Your task to perform on an android device: change the clock style Image 0: 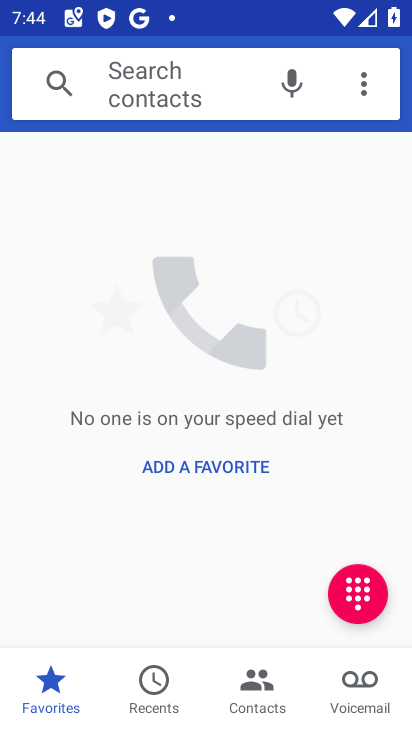
Step 0: press home button
Your task to perform on an android device: change the clock style Image 1: 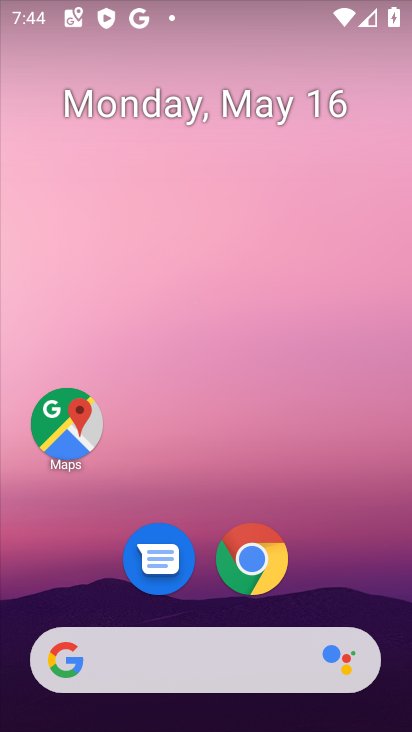
Step 1: drag from (316, 593) to (360, 108)
Your task to perform on an android device: change the clock style Image 2: 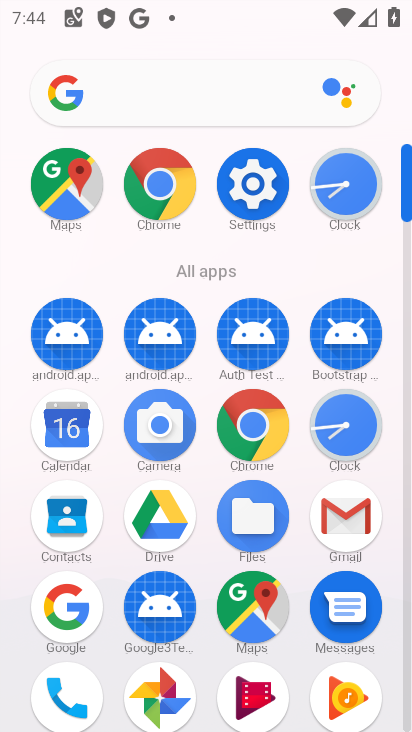
Step 2: click (350, 178)
Your task to perform on an android device: change the clock style Image 3: 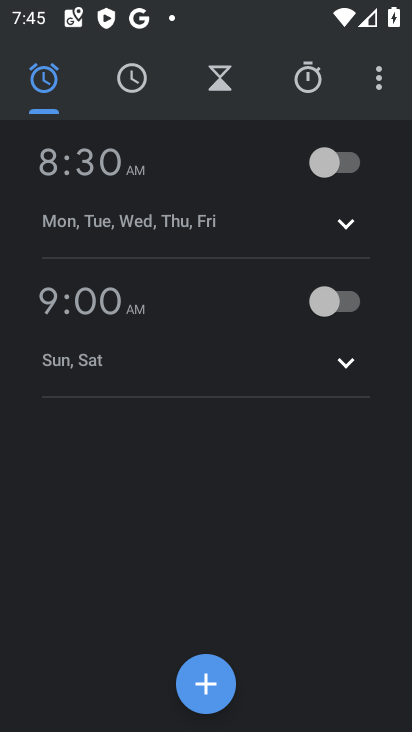
Step 3: click (389, 85)
Your task to perform on an android device: change the clock style Image 4: 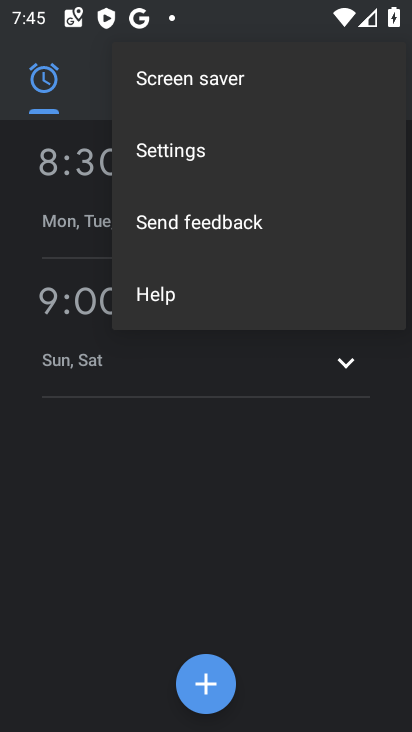
Step 4: click (150, 157)
Your task to perform on an android device: change the clock style Image 5: 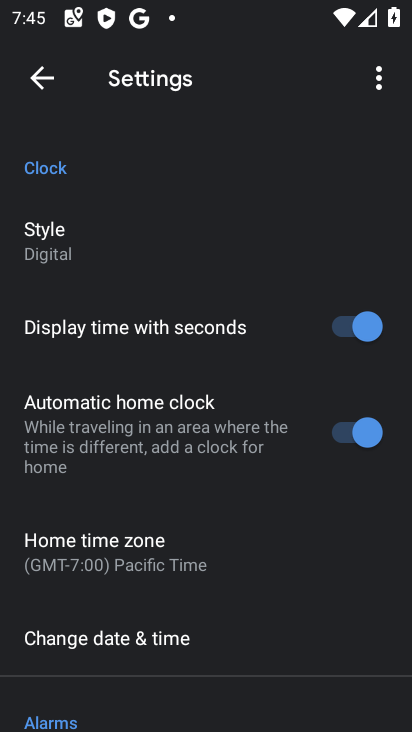
Step 5: click (130, 231)
Your task to perform on an android device: change the clock style Image 6: 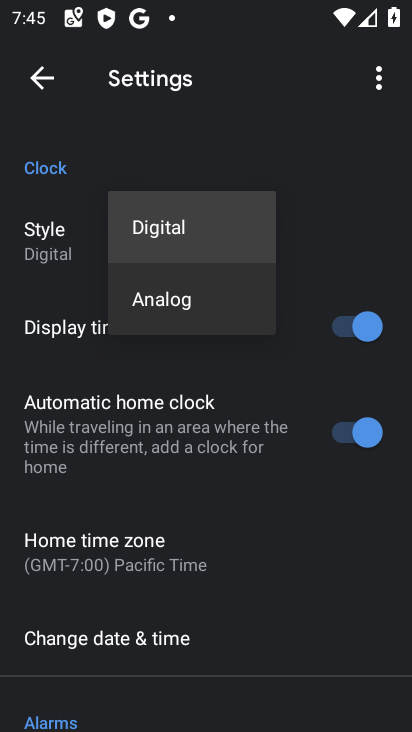
Step 6: click (130, 303)
Your task to perform on an android device: change the clock style Image 7: 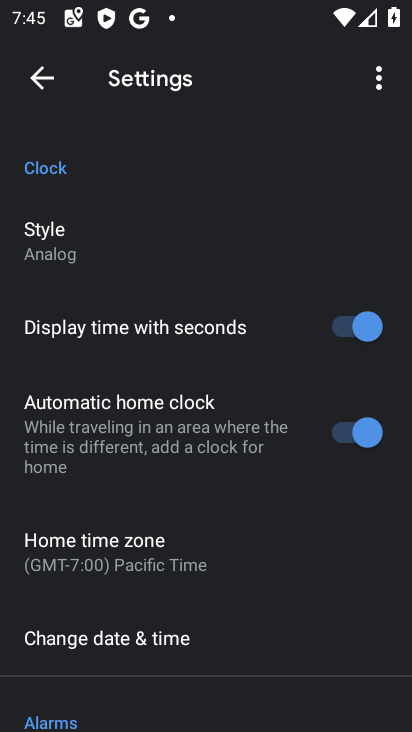
Step 7: task complete